Your task to perform on an android device: Open the web browser Image 0: 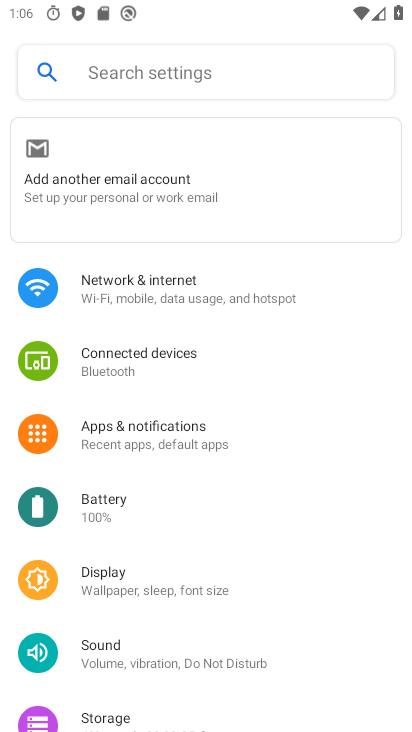
Step 0: press home button
Your task to perform on an android device: Open the web browser Image 1: 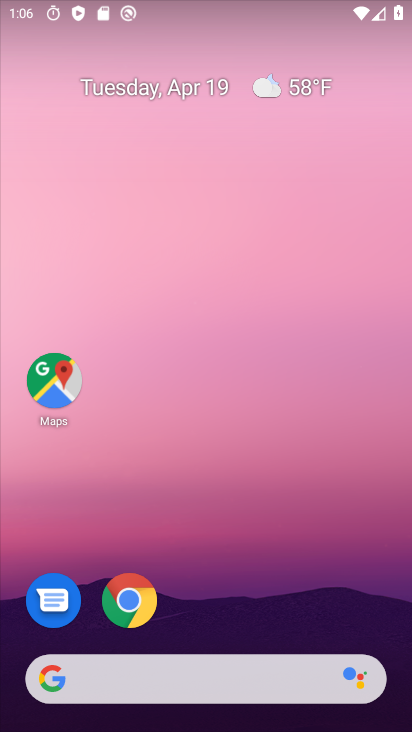
Step 1: drag from (254, 588) to (201, 185)
Your task to perform on an android device: Open the web browser Image 2: 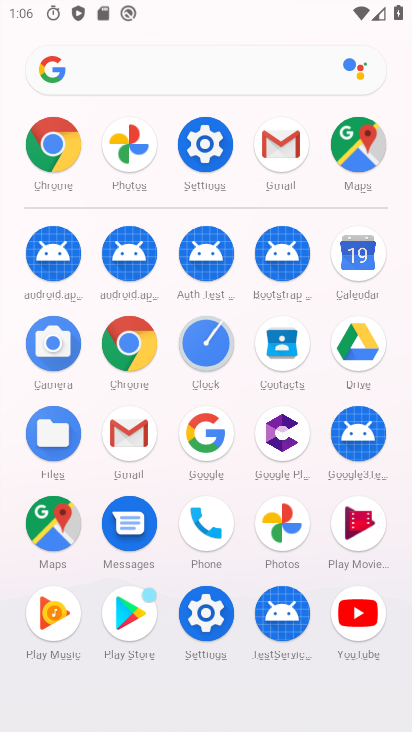
Step 2: click (38, 157)
Your task to perform on an android device: Open the web browser Image 3: 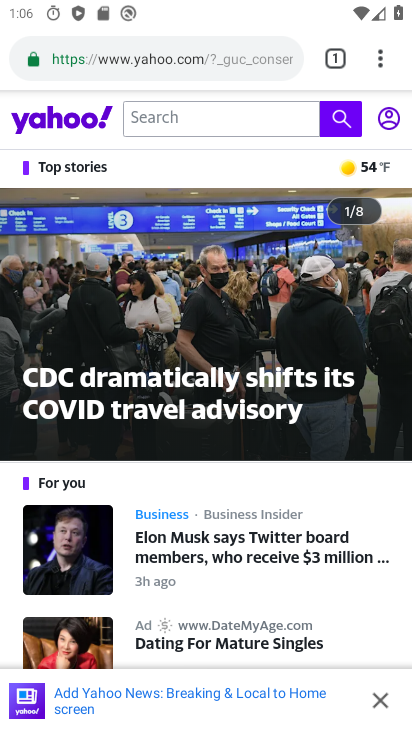
Step 3: click (188, 55)
Your task to perform on an android device: Open the web browser Image 4: 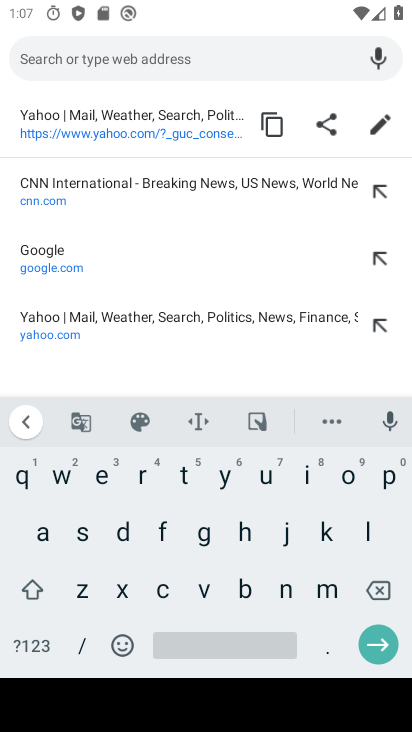
Step 4: click (54, 253)
Your task to perform on an android device: Open the web browser Image 5: 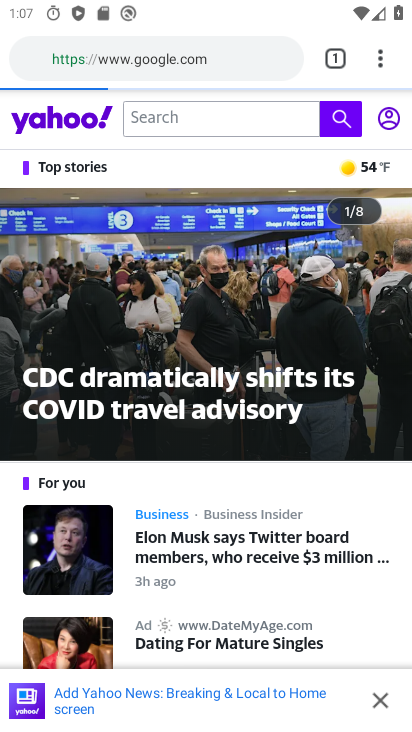
Step 5: task complete